Your task to perform on an android device: refresh tabs in the chrome app Image 0: 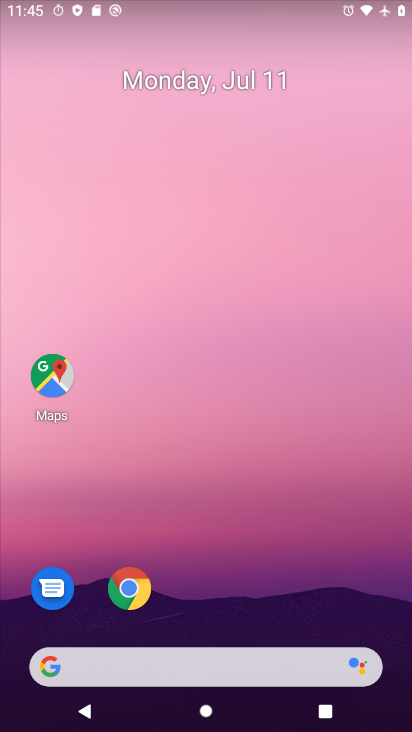
Step 0: click (136, 584)
Your task to perform on an android device: refresh tabs in the chrome app Image 1: 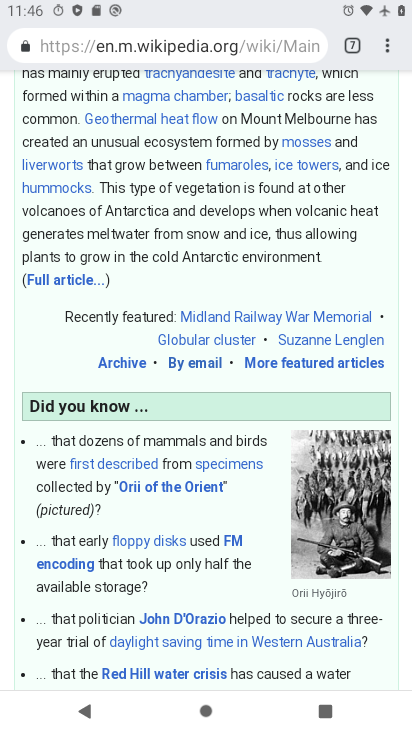
Step 1: click (387, 56)
Your task to perform on an android device: refresh tabs in the chrome app Image 2: 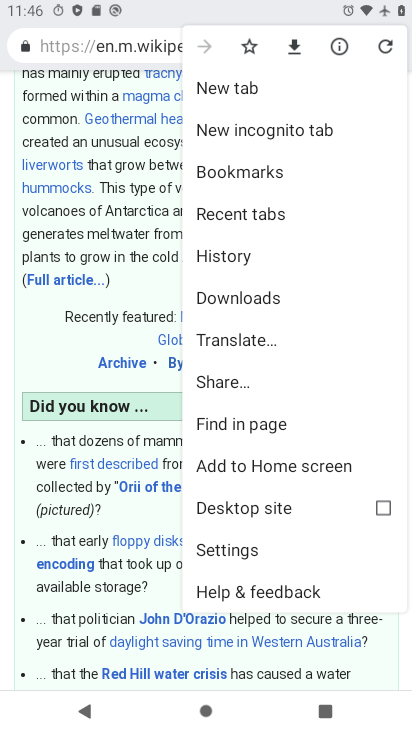
Step 2: click (384, 48)
Your task to perform on an android device: refresh tabs in the chrome app Image 3: 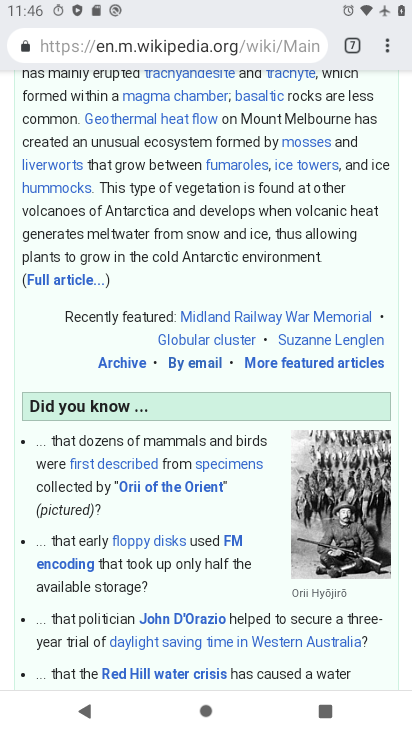
Step 3: task complete